Your task to perform on an android device: Open the Play Movies app and select the watchlist tab. Image 0: 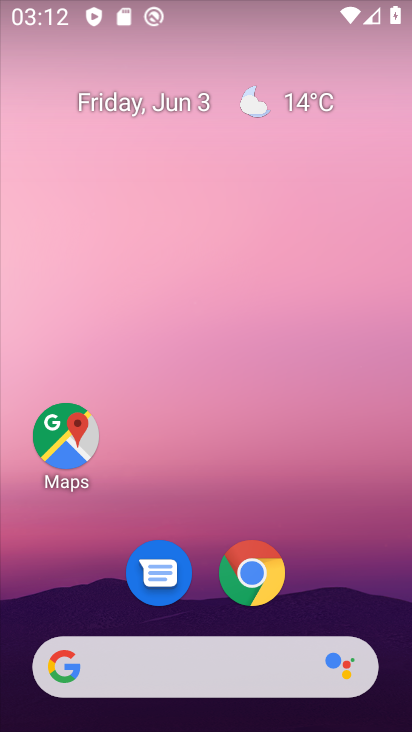
Step 0: drag from (225, 670) to (249, 61)
Your task to perform on an android device: Open the Play Movies app and select the watchlist tab. Image 1: 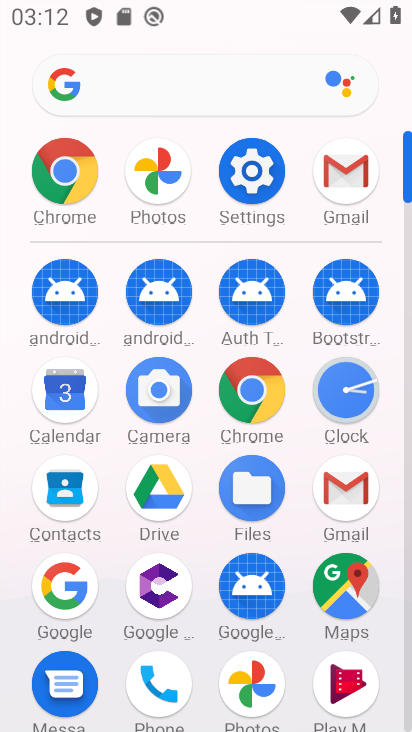
Step 1: click (344, 703)
Your task to perform on an android device: Open the Play Movies app and select the watchlist tab. Image 2: 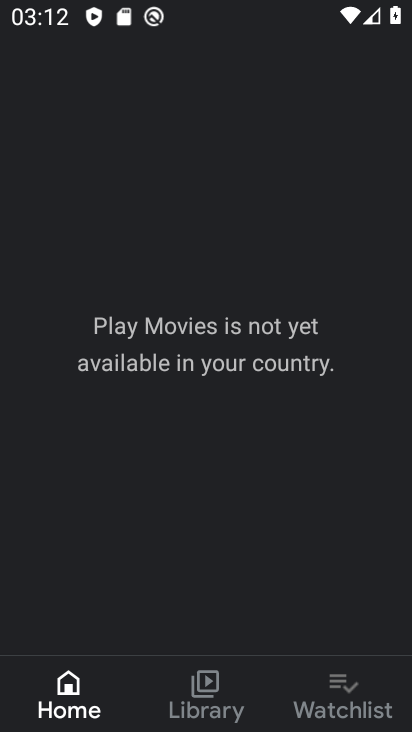
Step 2: click (338, 688)
Your task to perform on an android device: Open the Play Movies app and select the watchlist tab. Image 3: 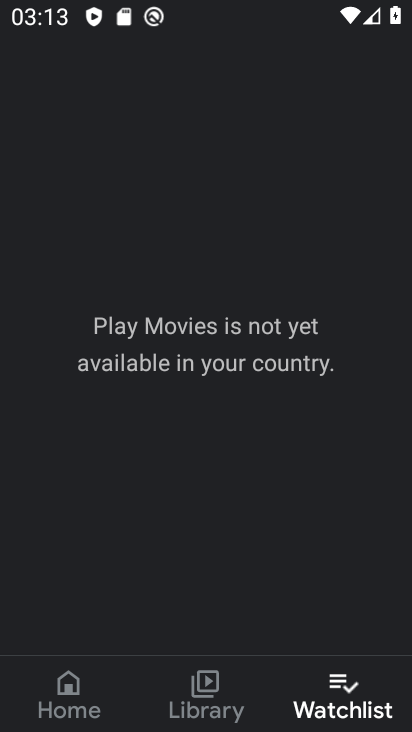
Step 3: task complete